Your task to perform on an android device: Go to Amazon Image 0: 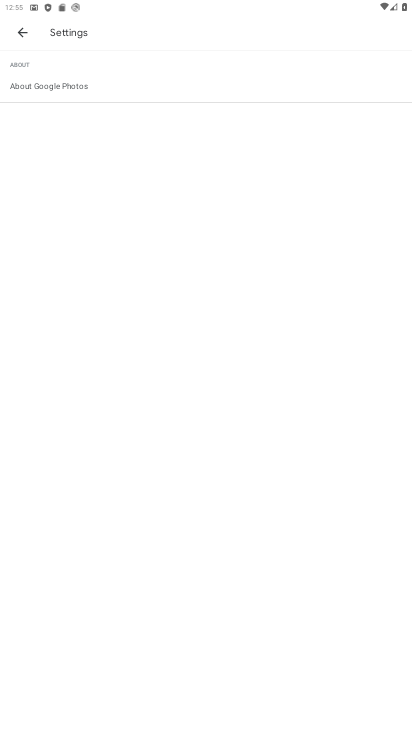
Step 0: press home button
Your task to perform on an android device: Go to Amazon Image 1: 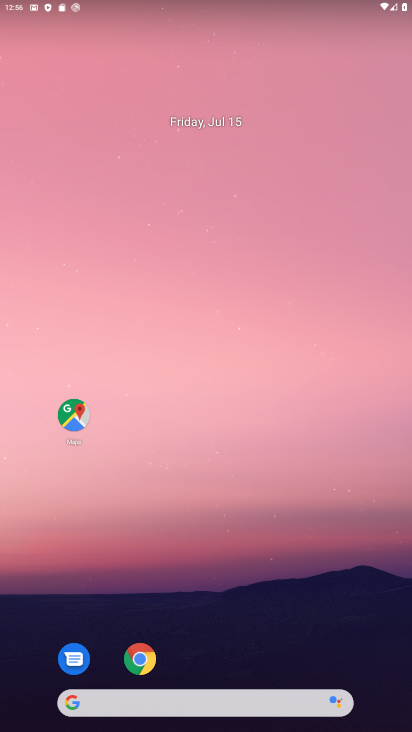
Step 1: click (206, 700)
Your task to perform on an android device: Go to Amazon Image 2: 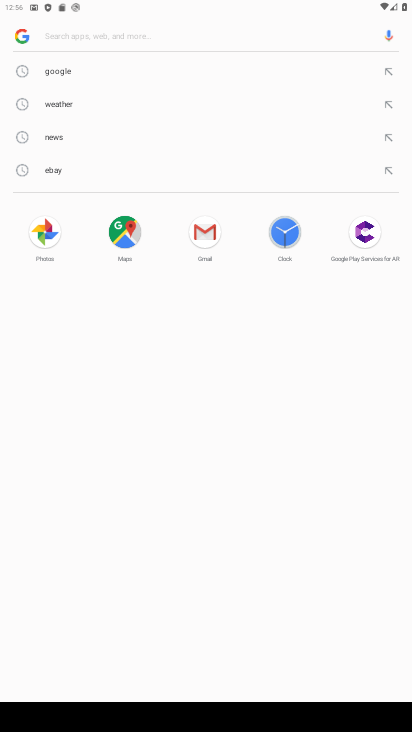
Step 2: type "amazon"
Your task to perform on an android device: Go to Amazon Image 3: 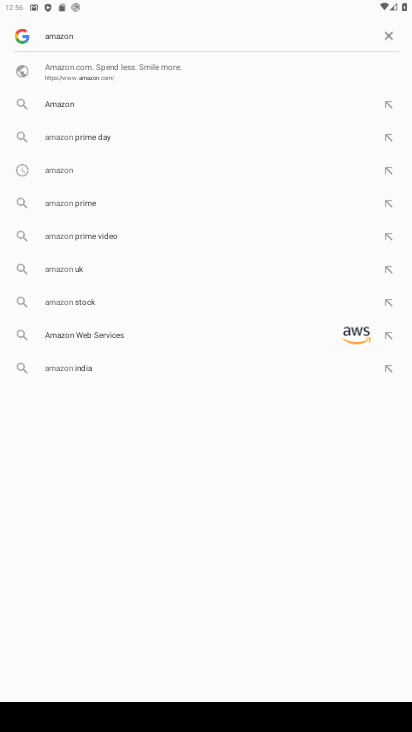
Step 3: click (84, 106)
Your task to perform on an android device: Go to Amazon Image 4: 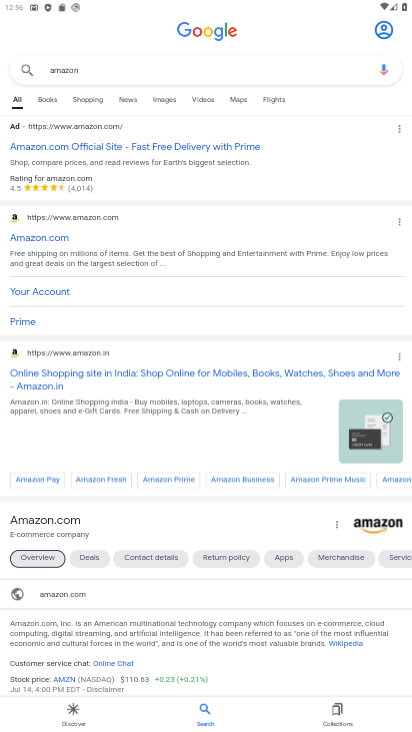
Step 4: click (63, 154)
Your task to perform on an android device: Go to Amazon Image 5: 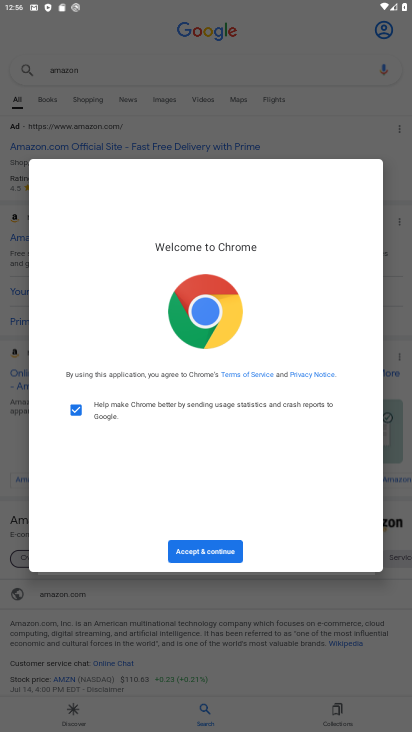
Step 5: click (181, 551)
Your task to perform on an android device: Go to Amazon Image 6: 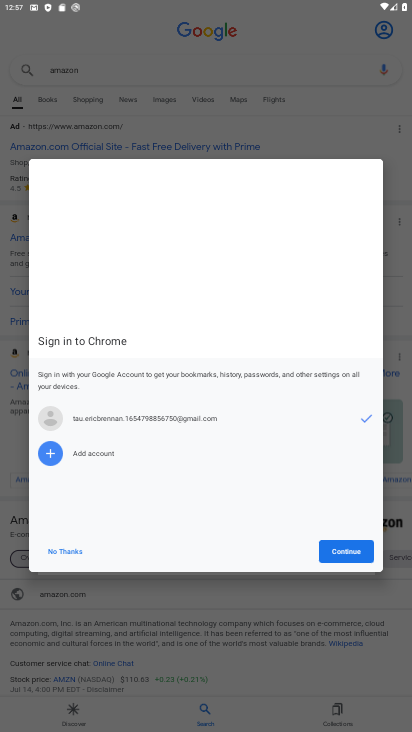
Step 6: click (181, 551)
Your task to perform on an android device: Go to Amazon Image 7: 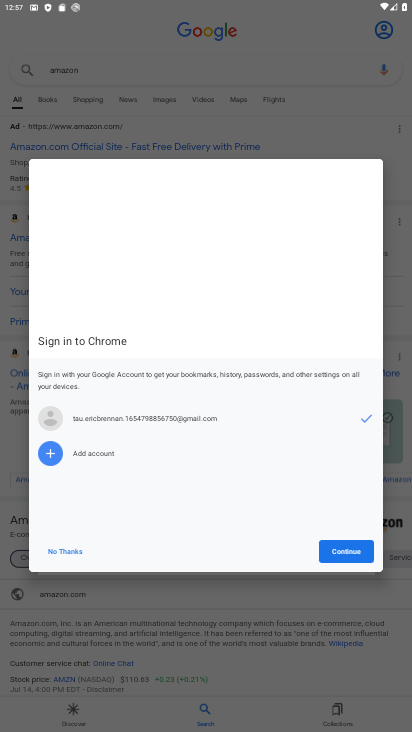
Step 7: click (333, 556)
Your task to perform on an android device: Go to Amazon Image 8: 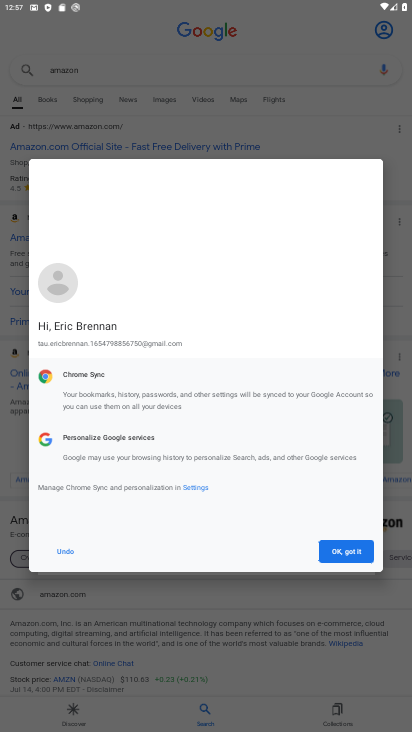
Step 8: click (333, 556)
Your task to perform on an android device: Go to Amazon Image 9: 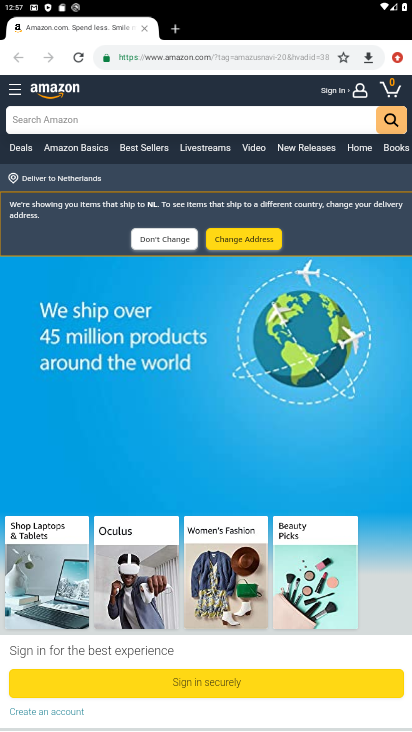
Step 9: task complete